Your task to perform on an android device: turn on the 12-hour format for clock Image 0: 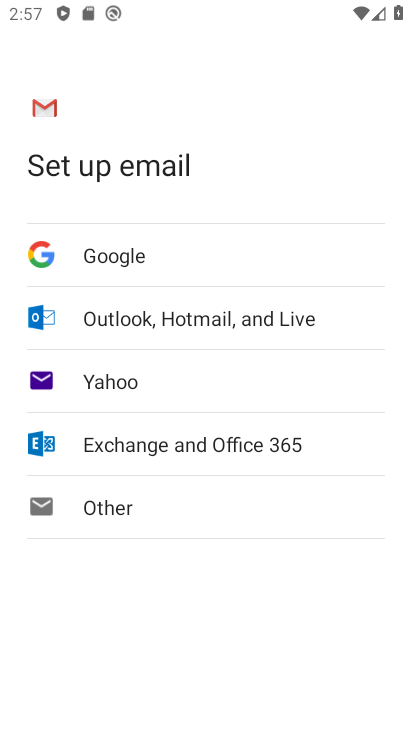
Step 0: press home button
Your task to perform on an android device: turn on the 12-hour format for clock Image 1: 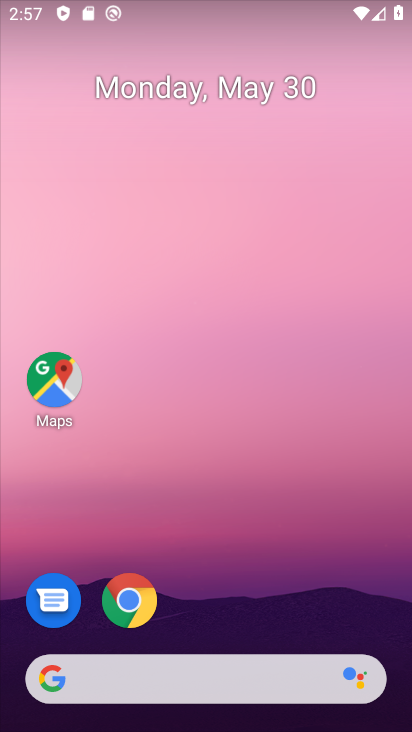
Step 1: drag from (217, 725) to (219, 63)
Your task to perform on an android device: turn on the 12-hour format for clock Image 2: 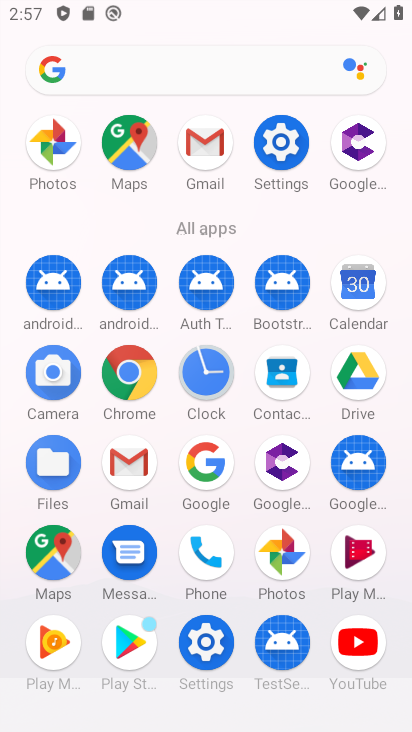
Step 2: click (212, 370)
Your task to perform on an android device: turn on the 12-hour format for clock Image 3: 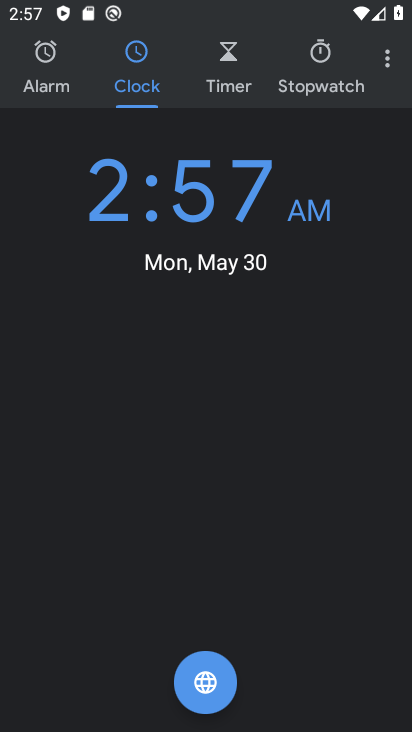
Step 3: click (387, 66)
Your task to perform on an android device: turn on the 12-hour format for clock Image 4: 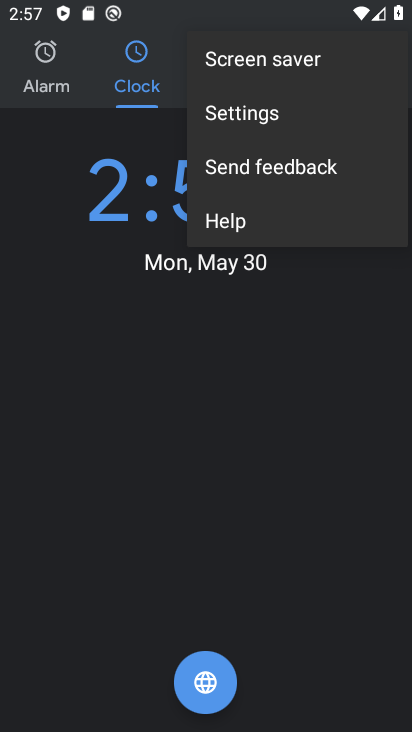
Step 4: click (248, 109)
Your task to perform on an android device: turn on the 12-hour format for clock Image 5: 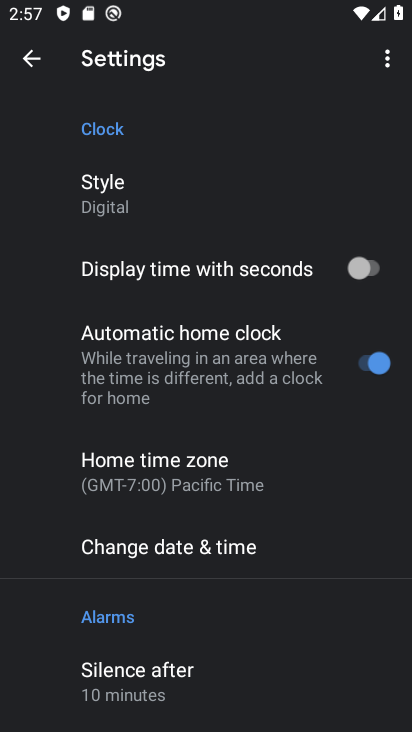
Step 5: drag from (205, 649) to (205, 333)
Your task to perform on an android device: turn on the 12-hour format for clock Image 6: 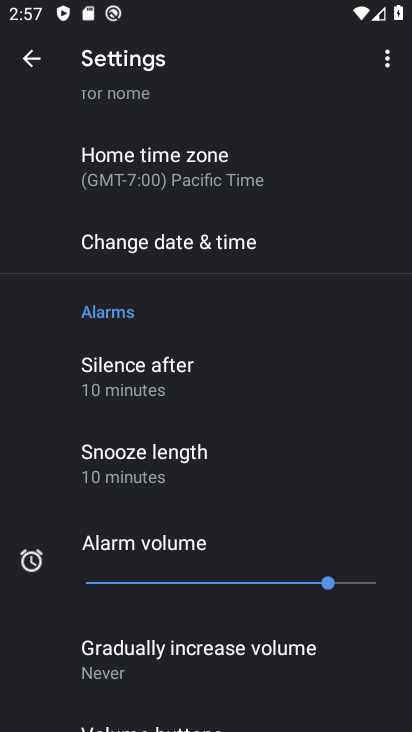
Step 6: drag from (200, 696) to (197, 618)
Your task to perform on an android device: turn on the 12-hour format for clock Image 7: 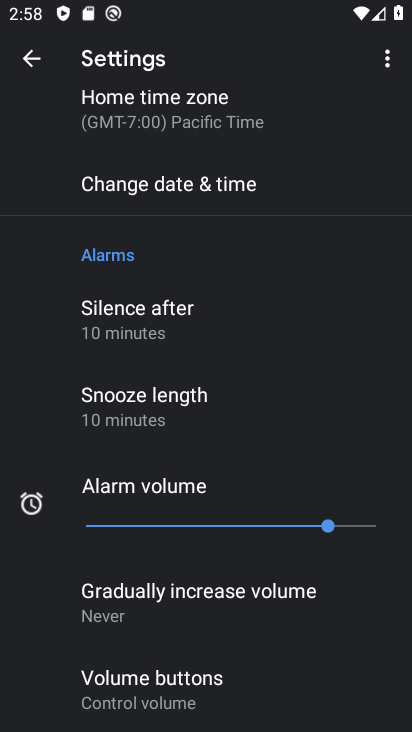
Step 7: click (169, 180)
Your task to perform on an android device: turn on the 12-hour format for clock Image 8: 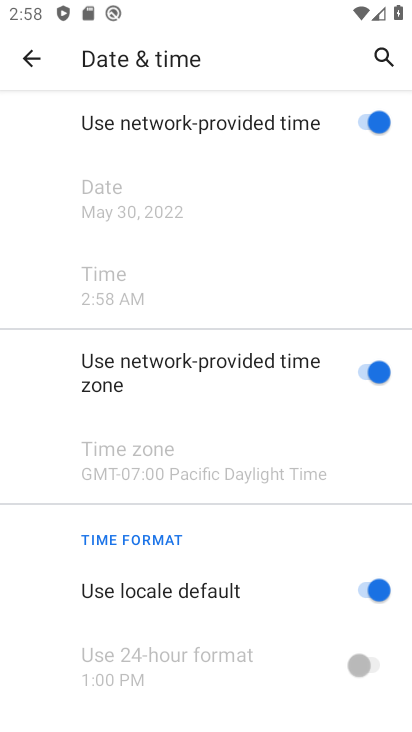
Step 8: task complete